Your task to perform on an android device: turn off location Image 0: 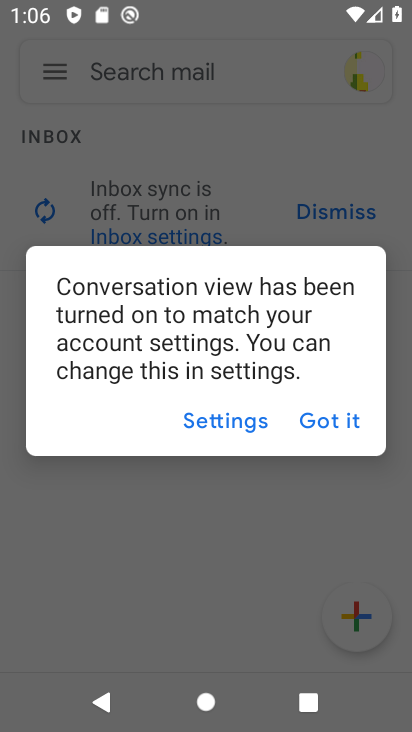
Step 0: press home button
Your task to perform on an android device: turn off location Image 1: 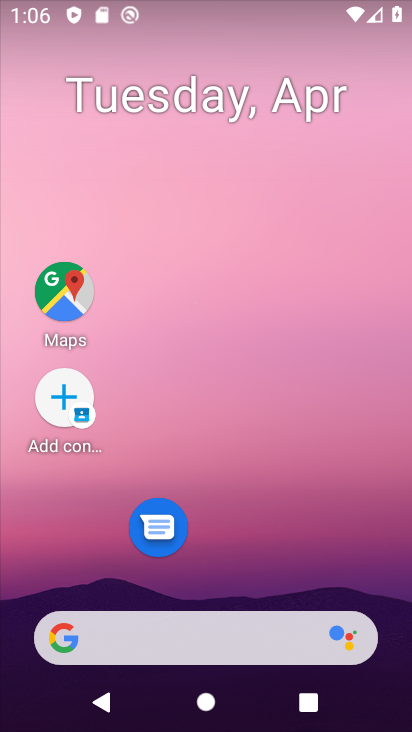
Step 1: drag from (278, 513) to (321, 82)
Your task to perform on an android device: turn off location Image 2: 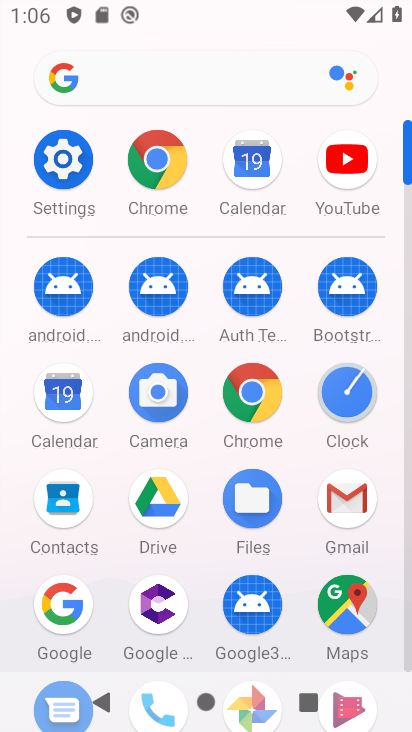
Step 2: click (65, 160)
Your task to perform on an android device: turn off location Image 3: 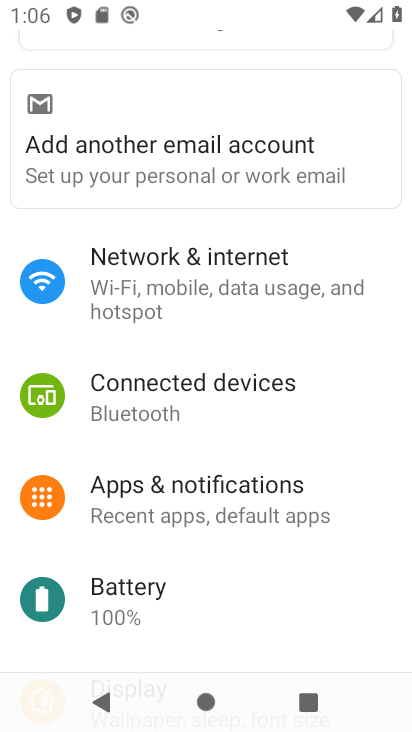
Step 3: drag from (208, 420) to (243, 315)
Your task to perform on an android device: turn off location Image 4: 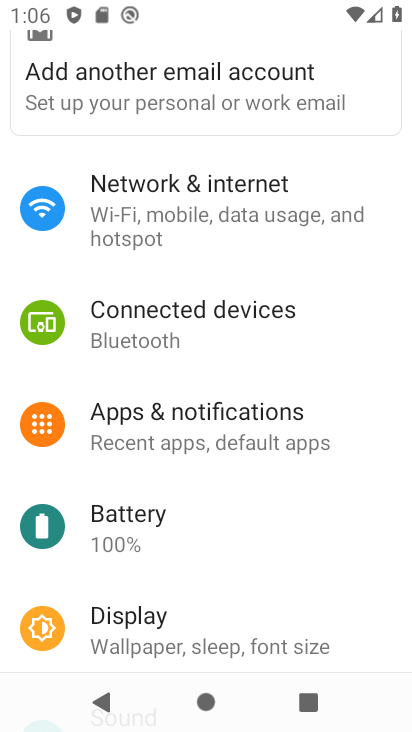
Step 4: drag from (203, 488) to (257, 391)
Your task to perform on an android device: turn off location Image 5: 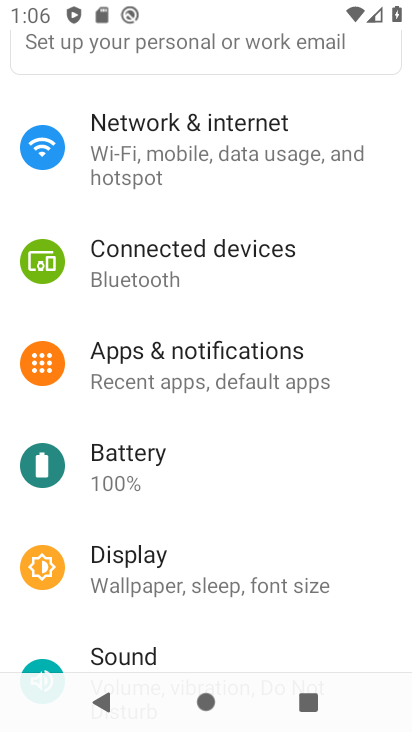
Step 5: drag from (207, 512) to (279, 358)
Your task to perform on an android device: turn off location Image 6: 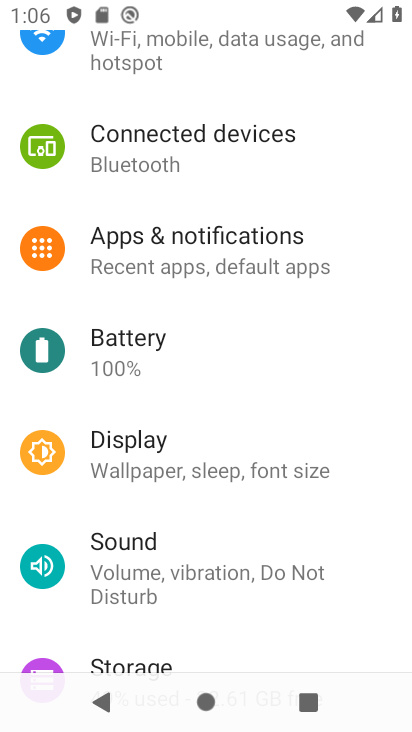
Step 6: drag from (222, 537) to (285, 395)
Your task to perform on an android device: turn off location Image 7: 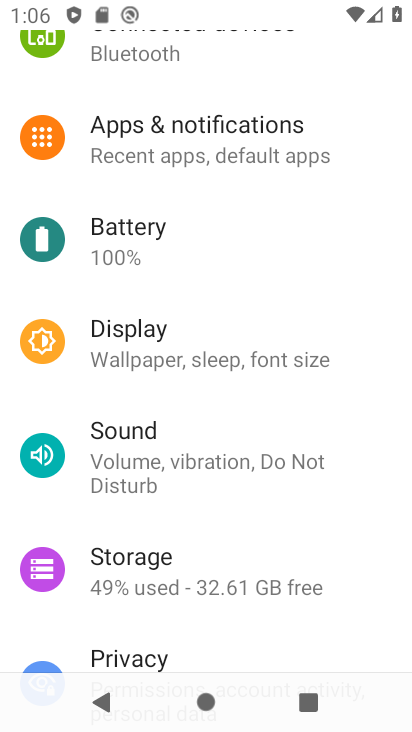
Step 7: drag from (219, 554) to (289, 422)
Your task to perform on an android device: turn off location Image 8: 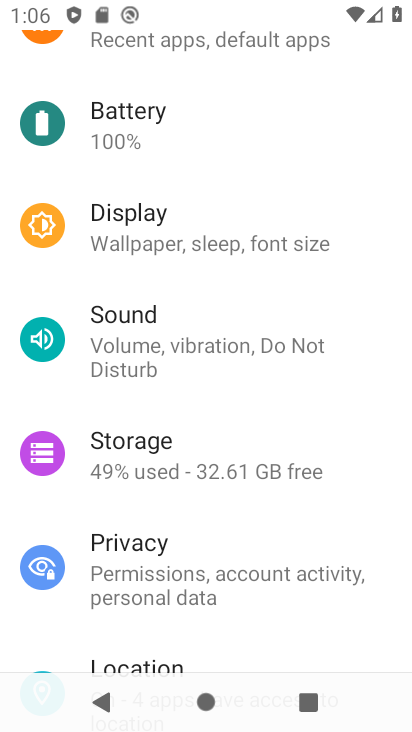
Step 8: drag from (231, 520) to (274, 422)
Your task to perform on an android device: turn off location Image 9: 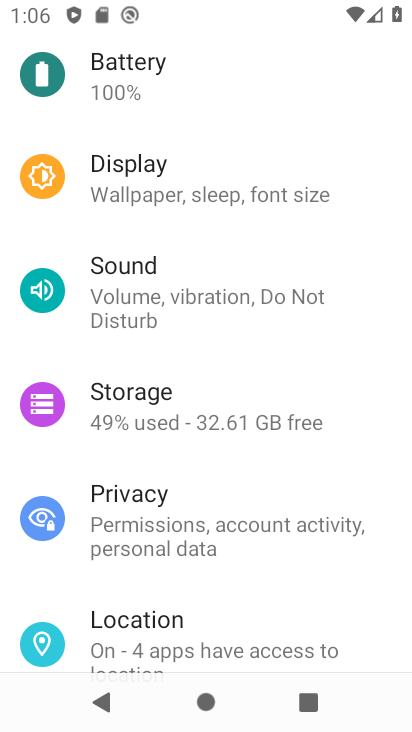
Step 9: drag from (221, 592) to (279, 452)
Your task to perform on an android device: turn off location Image 10: 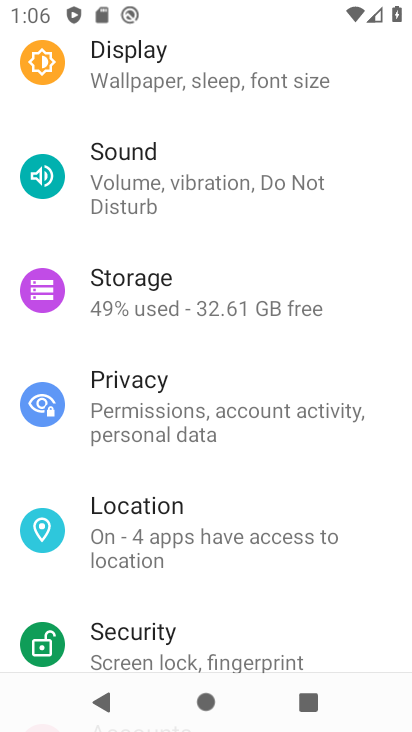
Step 10: click (213, 539)
Your task to perform on an android device: turn off location Image 11: 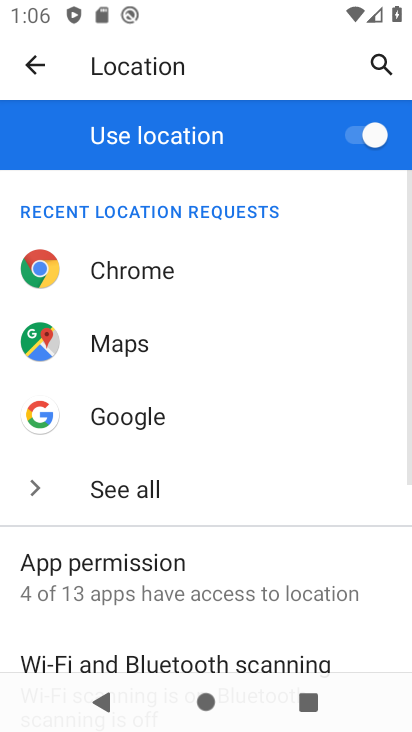
Step 11: click (369, 135)
Your task to perform on an android device: turn off location Image 12: 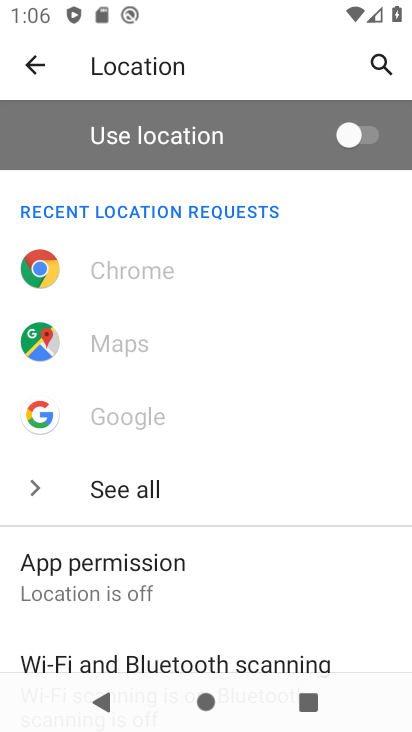
Step 12: task complete